Your task to perform on an android device: Turn on the flashlight Image 0: 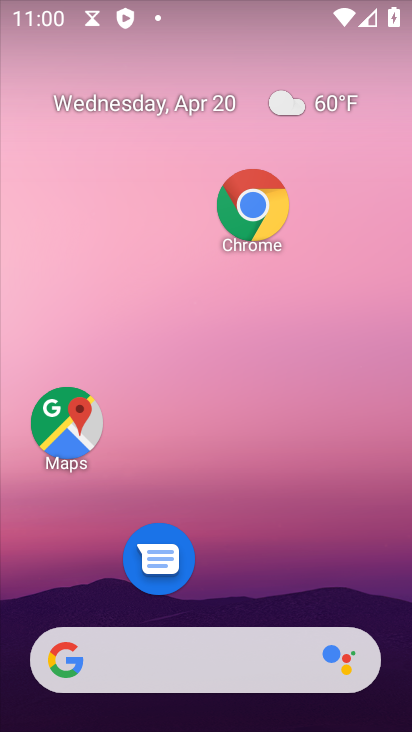
Step 0: drag from (269, 613) to (230, 10)
Your task to perform on an android device: Turn on the flashlight Image 1: 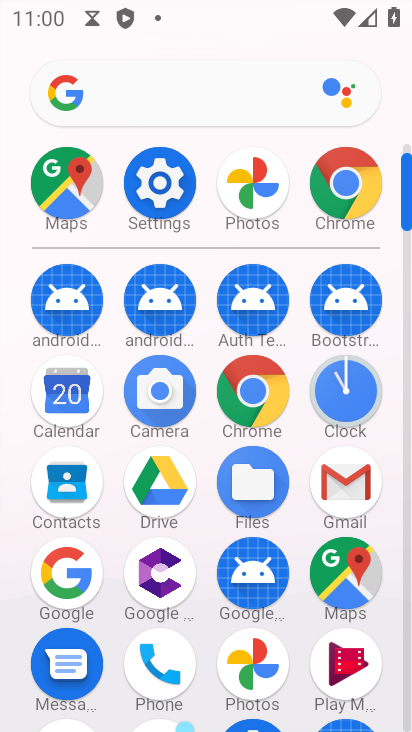
Step 1: drag from (207, 582) to (220, 231)
Your task to perform on an android device: Turn on the flashlight Image 2: 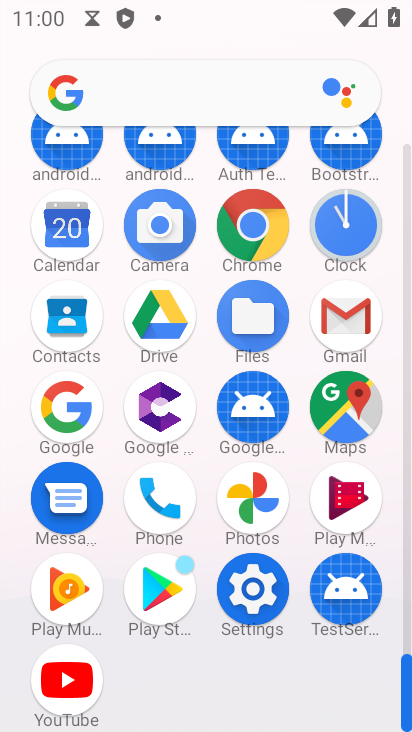
Step 2: click (256, 599)
Your task to perform on an android device: Turn on the flashlight Image 3: 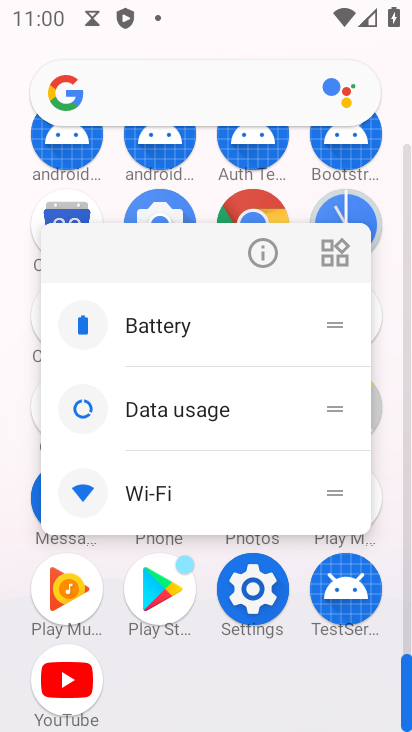
Step 3: click (251, 587)
Your task to perform on an android device: Turn on the flashlight Image 4: 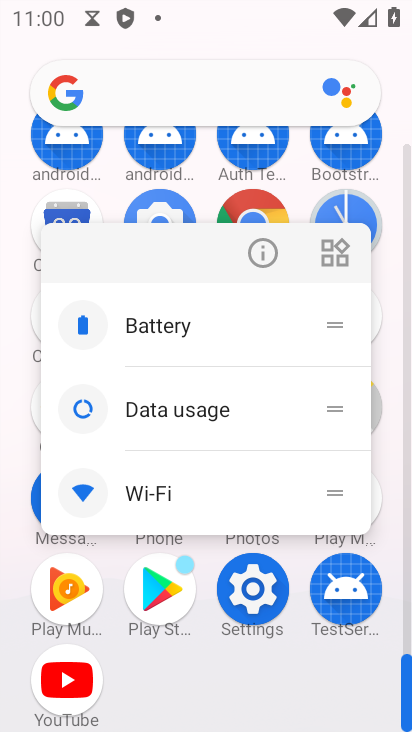
Step 4: click (227, 584)
Your task to perform on an android device: Turn on the flashlight Image 5: 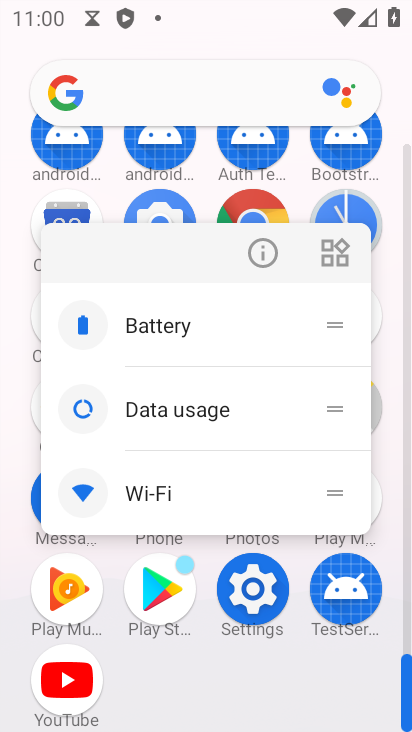
Step 5: click (227, 584)
Your task to perform on an android device: Turn on the flashlight Image 6: 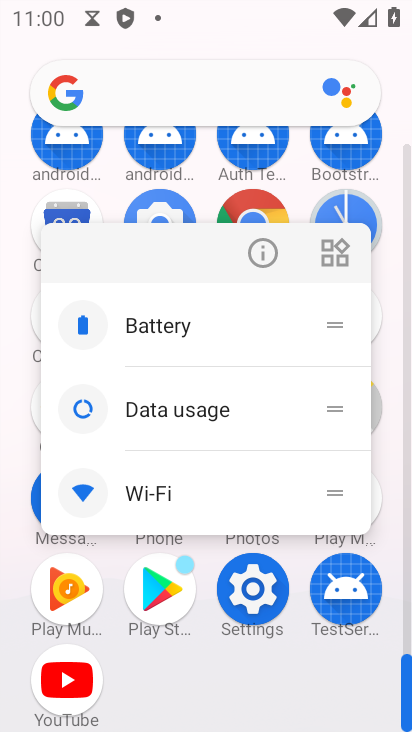
Step 6: click (254, 593)
Your task to perform on an android device: Turn on the flashlight Image 7: 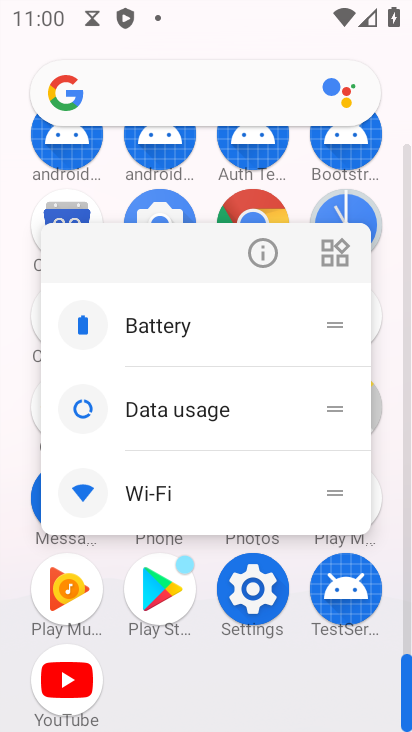
Step 7: click (254, 593)
Your task to perform on an android device: Turn on the flashlight Image 8: 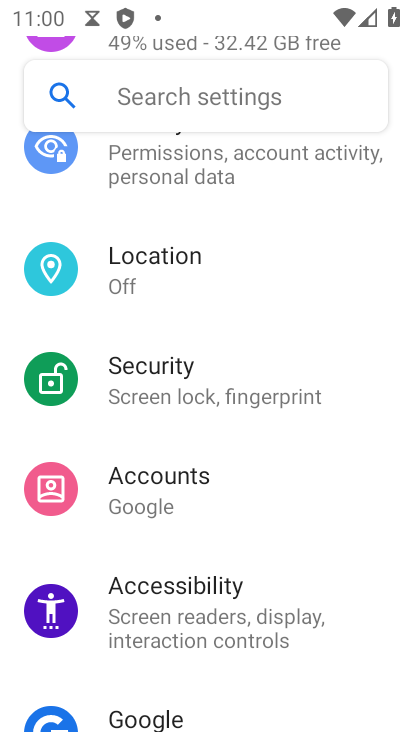
Step 8: task complete